Your task to perform on an android device: turn off improve location accuracy Image 0: 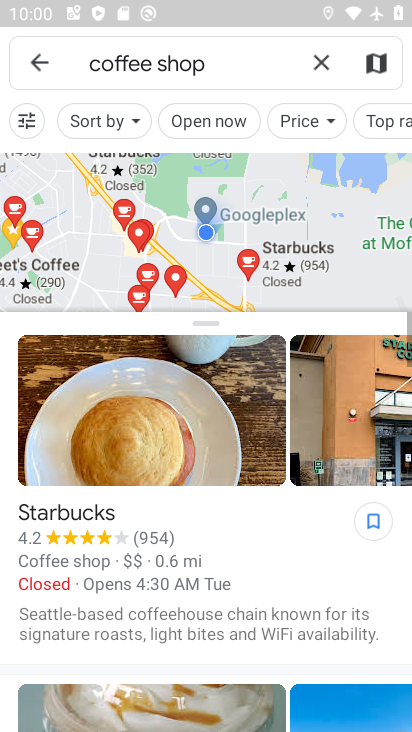
Step 0: press back button
Your task to perform on an android device: turn off improve location accuracy Image 1: 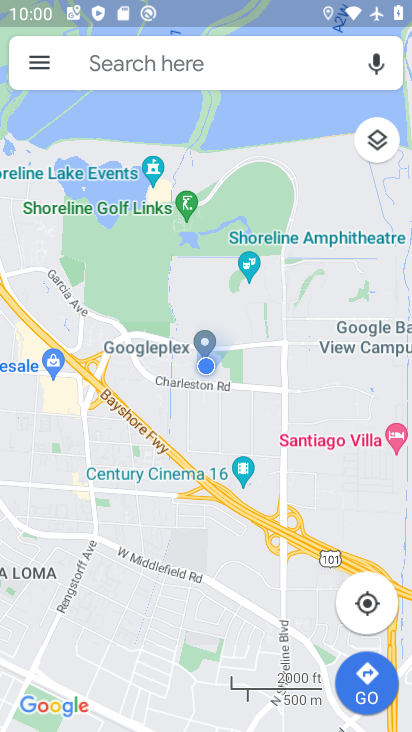
Step 1: press home button
Your task to perform on an android device: turn off improve location accuracy Image 2: 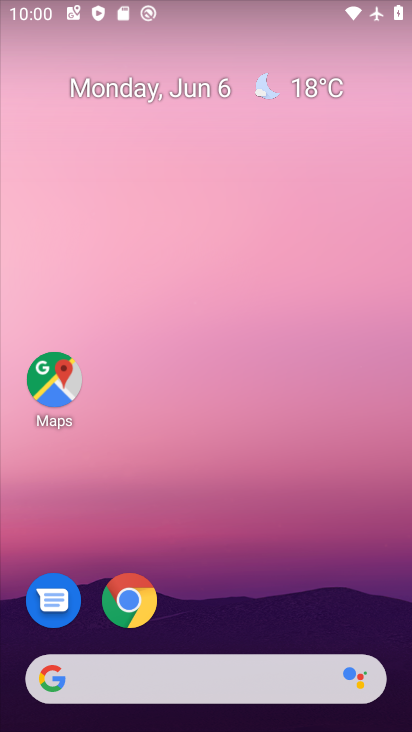
Step 2: drag from (237, 567) to (240, 2)
Your task to perform on an android device: turn off improve location accuracy Image 3: 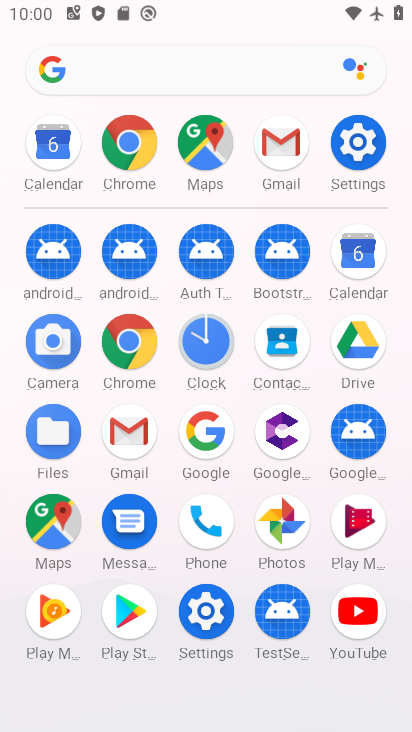
Step 3: click (355, 138)
Your task to perform on an android device: turn off improve location accuracy Image 4: 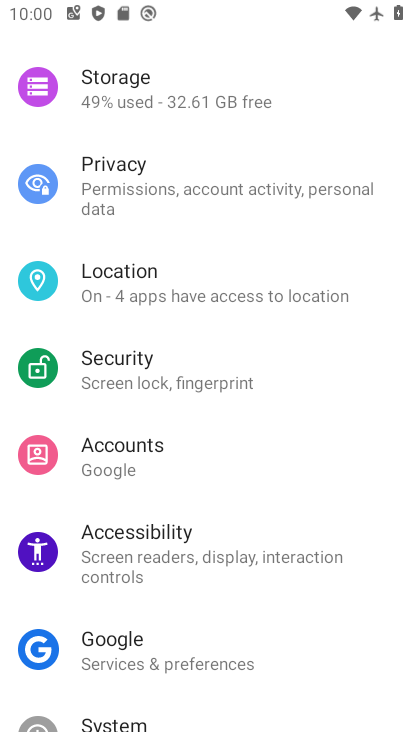
Step 4: drag from (278, 587) to (284, 172)
Your task to perform on an android device: turn off improve location accuracy Image 5: 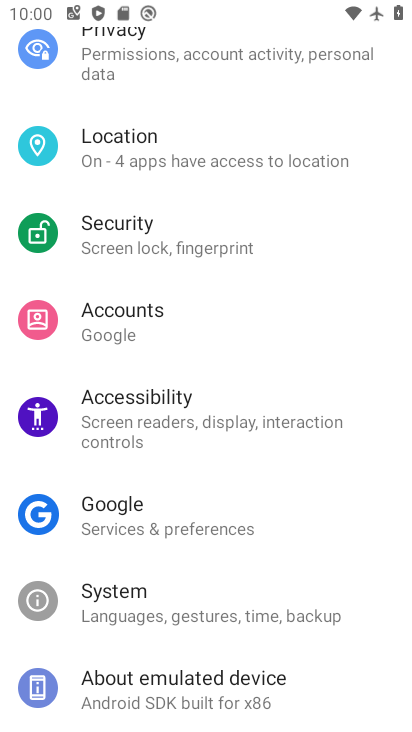
Step 5: drag from (284, 172) to (271, 432)
Your task to perform on an android device: turn off improve location accuracy Image 6: 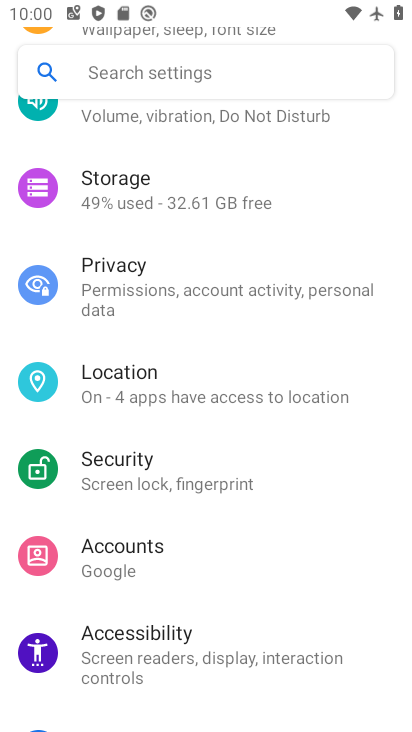
Step 6: click (166, 385)
Your task to perform on an android device: turn off improve location accuracy Image 7: 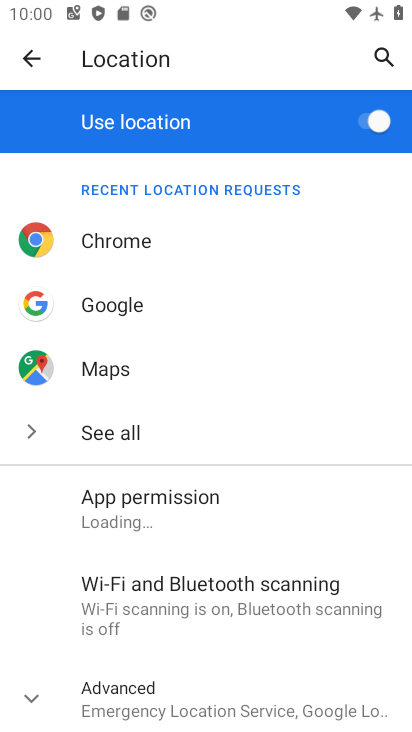
Step 7: click (41, 685)
Your task to perform on an android device: turn off improve location accuracy Image 8: 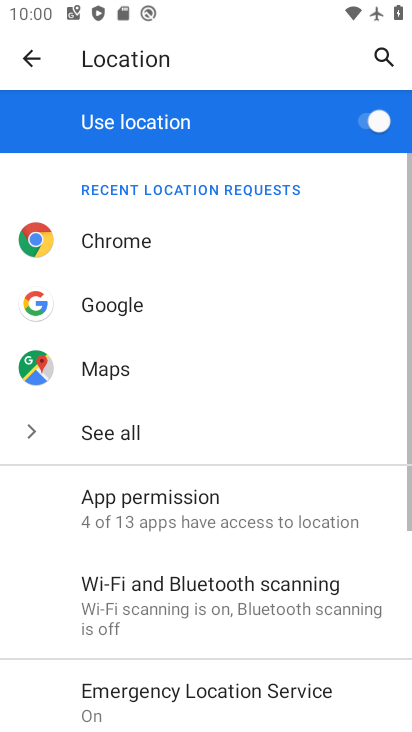
Step 8: drag from (259, 639) to (304, 208)
Your task to perform on an android device: turn off improve location accuracy Image 9: 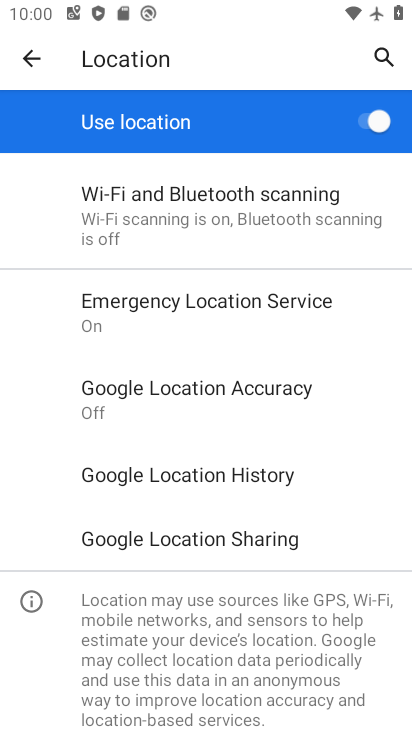
Step 9: click (250, 387)
Your task to perform on an android device: turn off improve location accuracy Image 10: 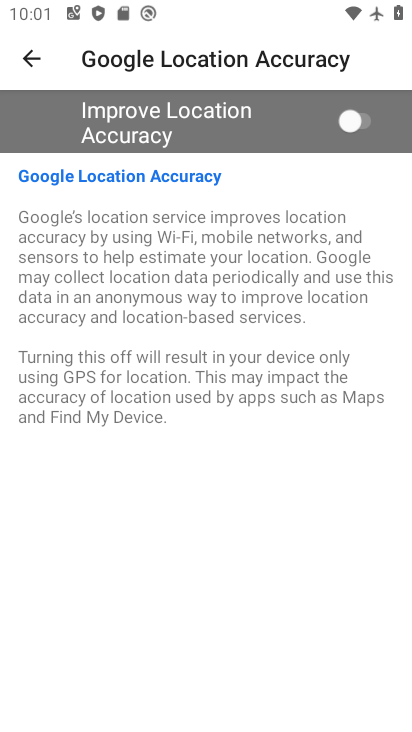
Step 10: task complete